Your task to perform on an android device: open sync settings in chrome Image 0: 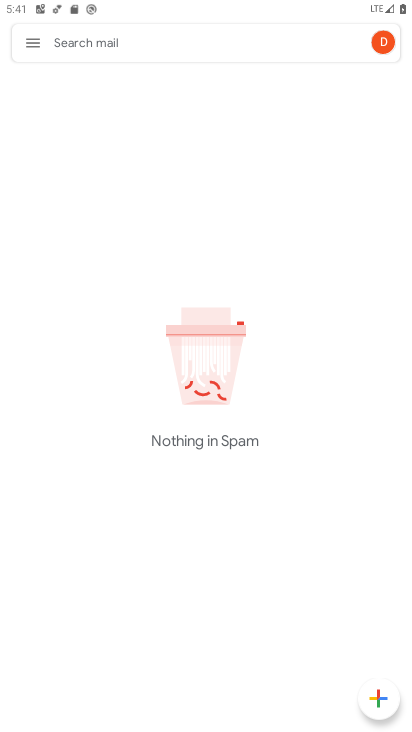
Step 0: press home button
Your task to perform on an android device: open sync settings in chrome Image 1: 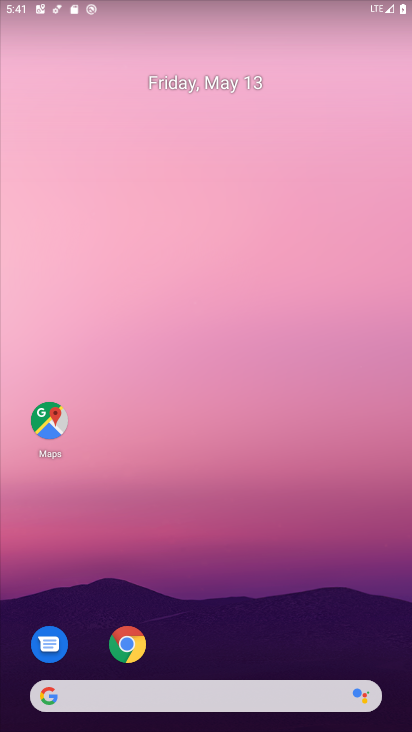
Step 1: click (124, 647)
Your task to perform on an android device: open sync settings in chrome Image 2: 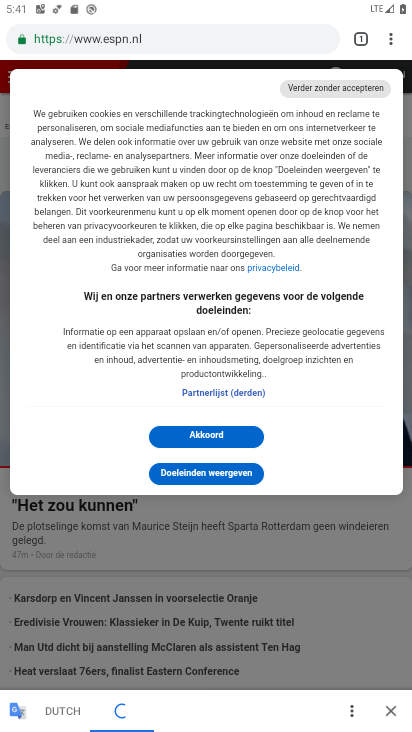
Step 2: click (392, 41)
Your task to perform on an android device: open sync settings in chrome Image 3: 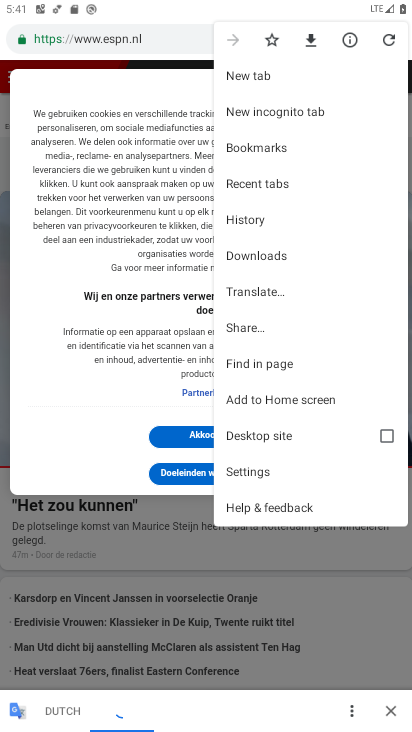
Step 3: click (265, 473)
Your task to perform on an android device: open sync settings in chrome Image 4: 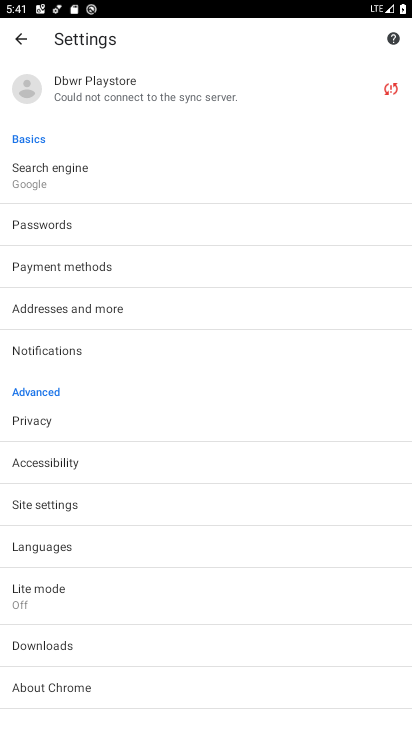
Step 4: click (163, 101)
Your task to perform on an android device: open sync settings in chrome Image 5: 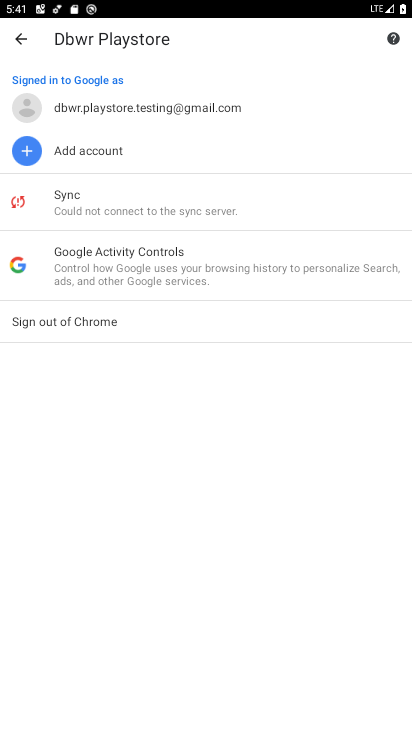
Step 5: click (122, 199)
Your task to perform on an android device: open sync settings in chrome Image 6: 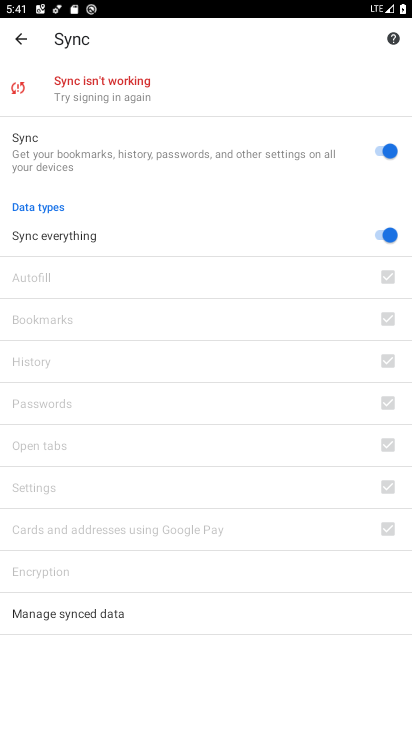
Step 6: task complete